Your task to perform on an android device: Open accessibility settings Image 0: 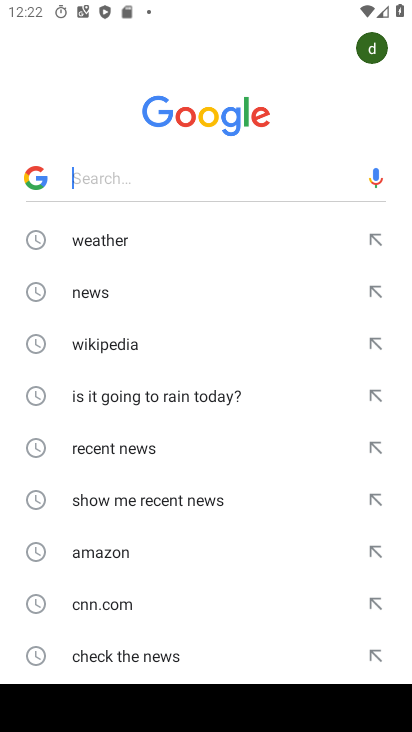
Step 0: press home button
Your task to perform on an android device: Open accessibility settings Image 1: 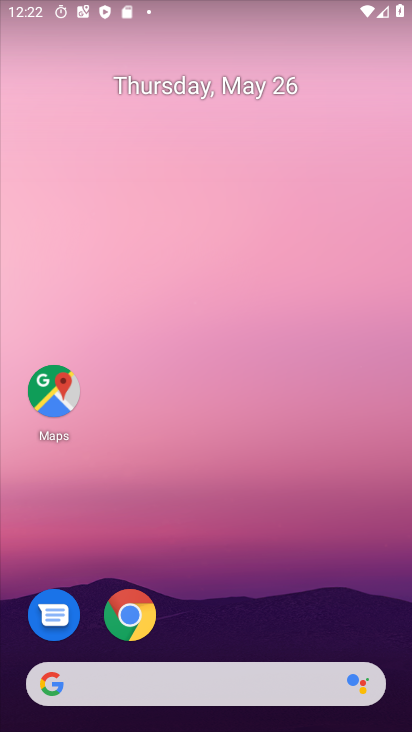
Step 1: drag from (241, 626) to (192, 270)
Your task to perform on an android device: Open accessibility settings Image 2: 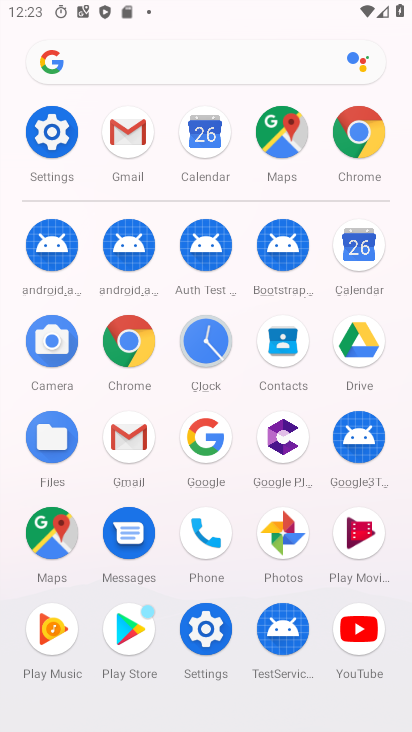
Step 2: click (57, 136)
Your task to perform on an android device: Open accessibility settings Image 3: 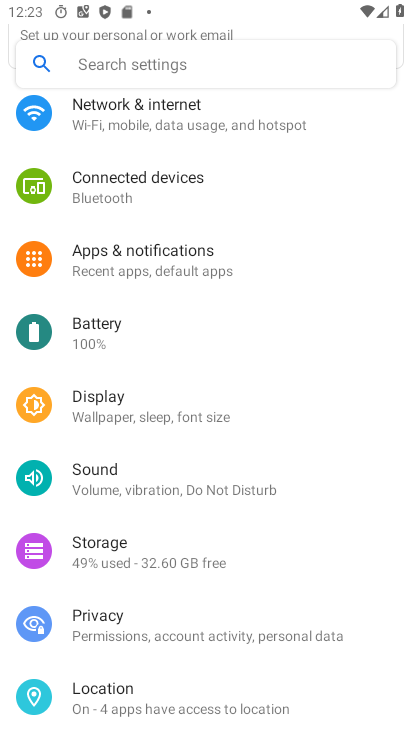
Step 3: drag from (203, 612) to (158, 335)
Your task to perform on an android device: Open accessibility settings Image 4: 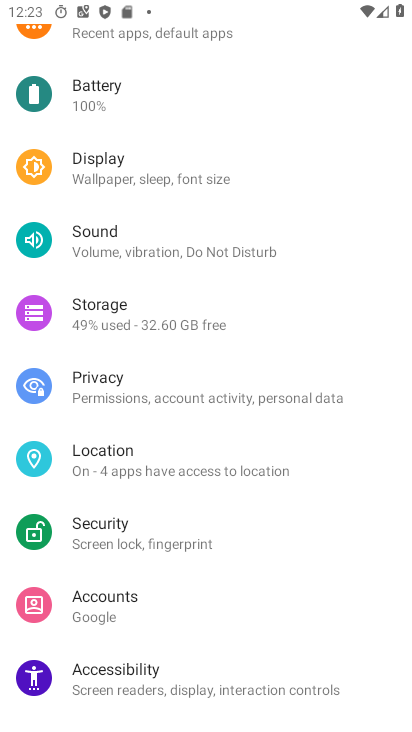
Step 4: click (192, 678)
Your task to perform on an android device: Open accessibility settings Image 5: 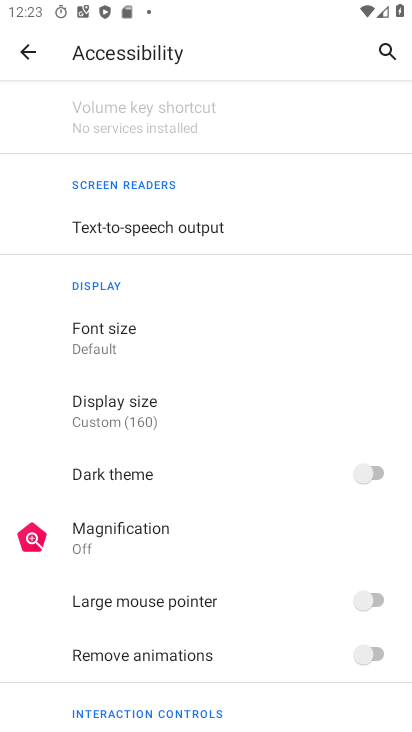
Step 5: task complete